Your task to perform on an android device: Search for "razer blade" on bestbuy.com, select the first entry, and add it to the cart. Image 0: 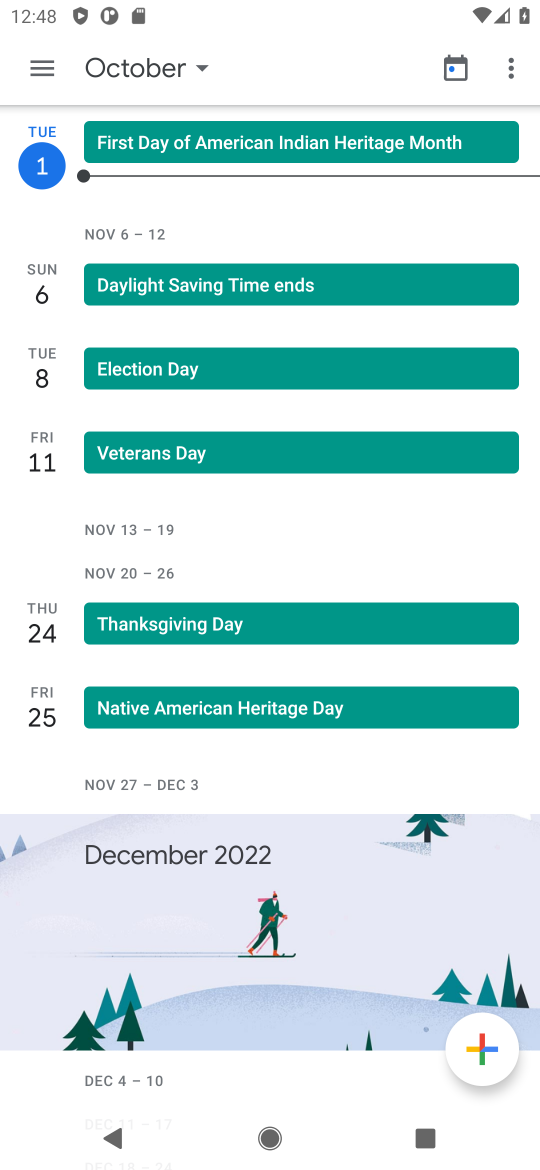
Step 0: press home button
Your task to perform on an android device: Search for "razer blade" on bestbuy.com, select the first entry, and add it to the cart. Image 1: 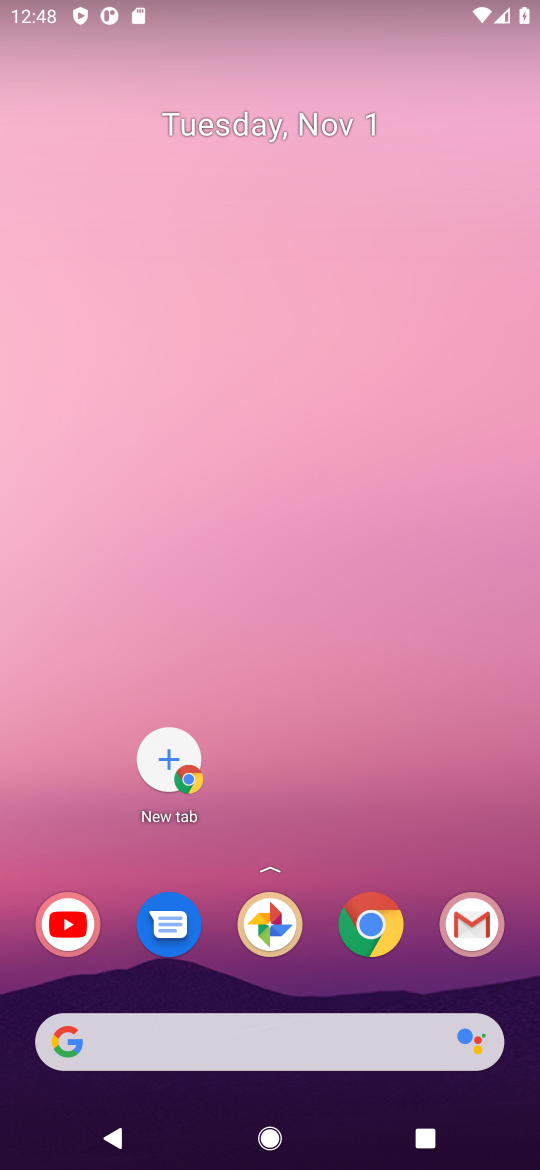
Step 1: click (378, 910)
Your task to perform on an android device: Search for "razer blade" on bestbuy.com, select the first entry, and add it to the cart. Image 2: 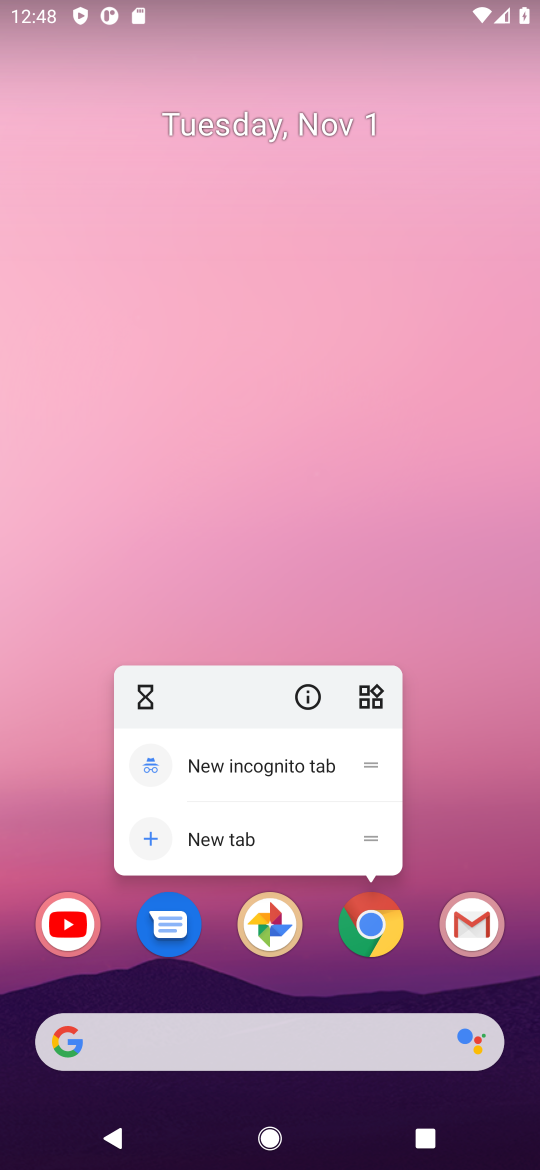
Step 2: click (371, 938)
Your task to perform on an android device: Search for "razer blade" on bestbuy.com, select the first entry, and add it to the cart. Image 3: 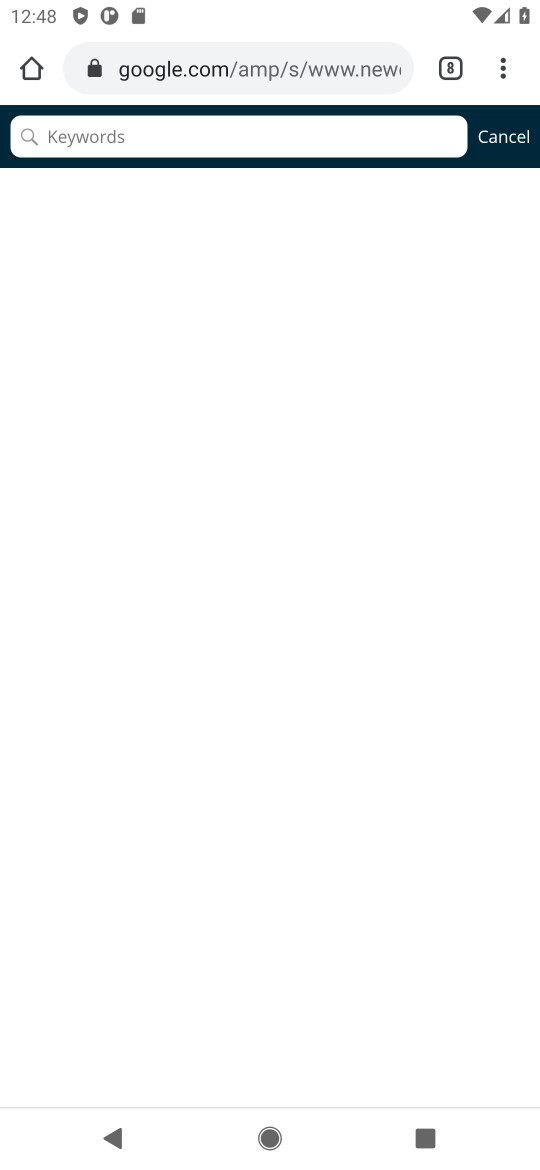
Step 3: click (144, 67)
Your task to perform on an android device: Search for "razer blade" on bestbuy.com, select the first entry, and add it to the cart. Image 4: 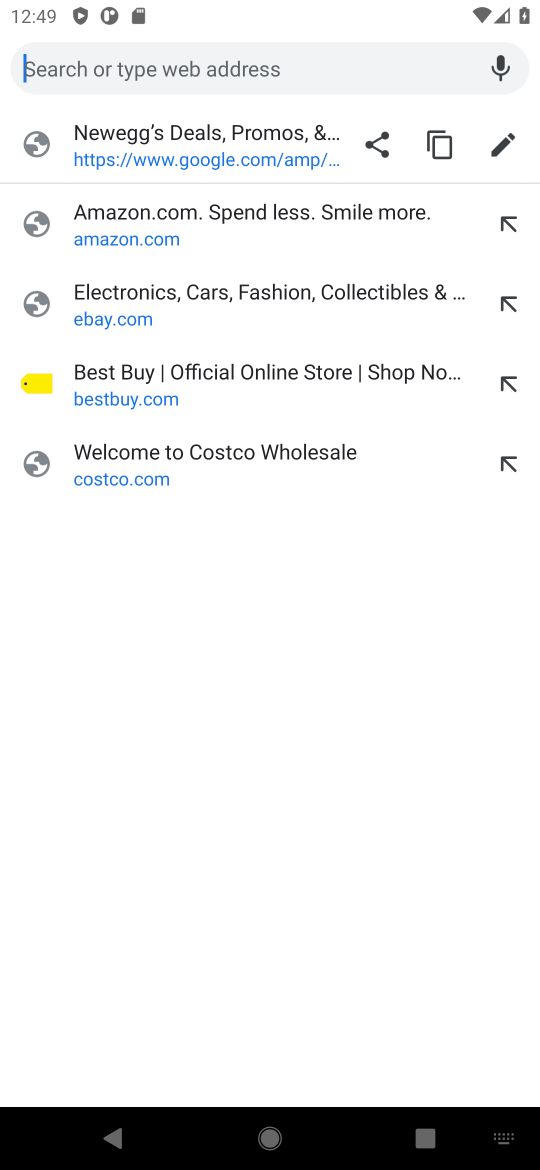
Step 4: type "bestbuy.com"
Your task to perform on an android device: Search for "razer blade" on bestbuy.com, select the first entry, and add it to the cart. Image 5: 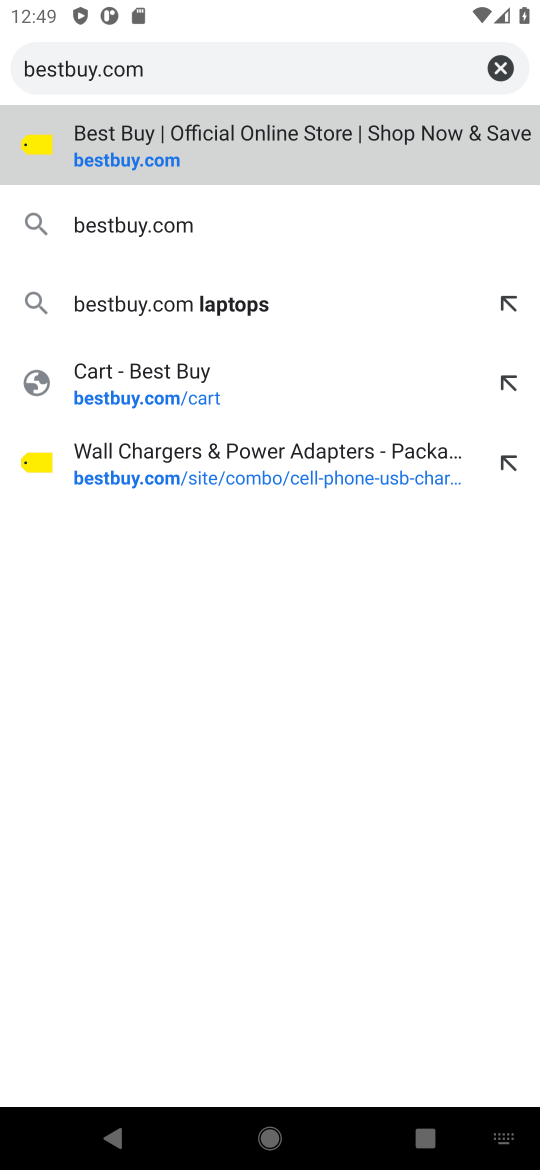
Step 5: type ""
Your task to perform on an android device: Search for "razer blade" on bestbuy.com, select the first entry, and add it to the cart. Image 6: 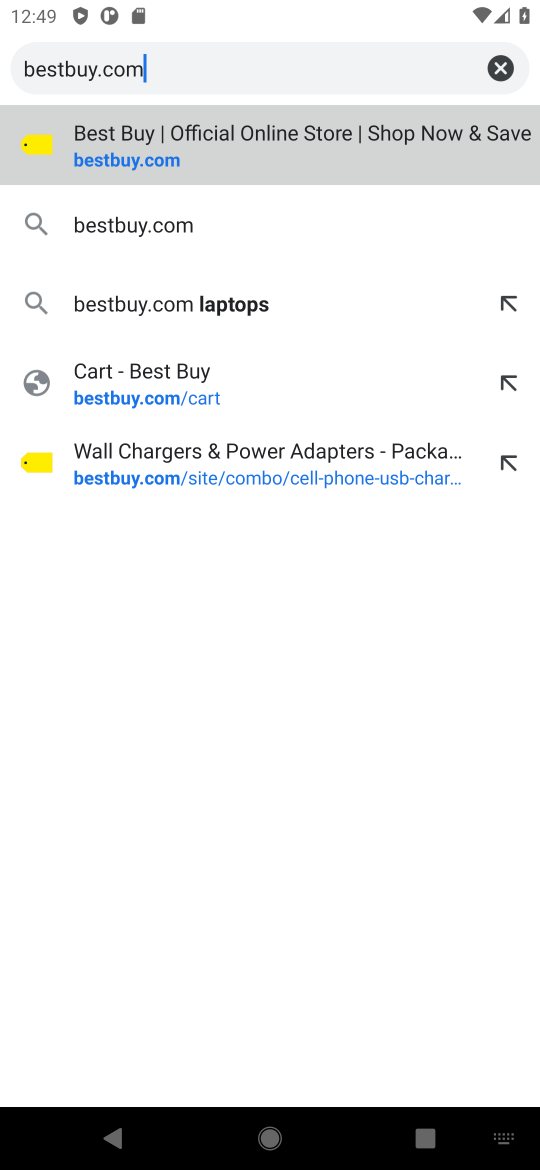
Step 6: click (129, 130)
Your task to perform on an android device: Search for "razer blade" on bestbuy.com, select the first entry, and add it to the cart. Image 7: 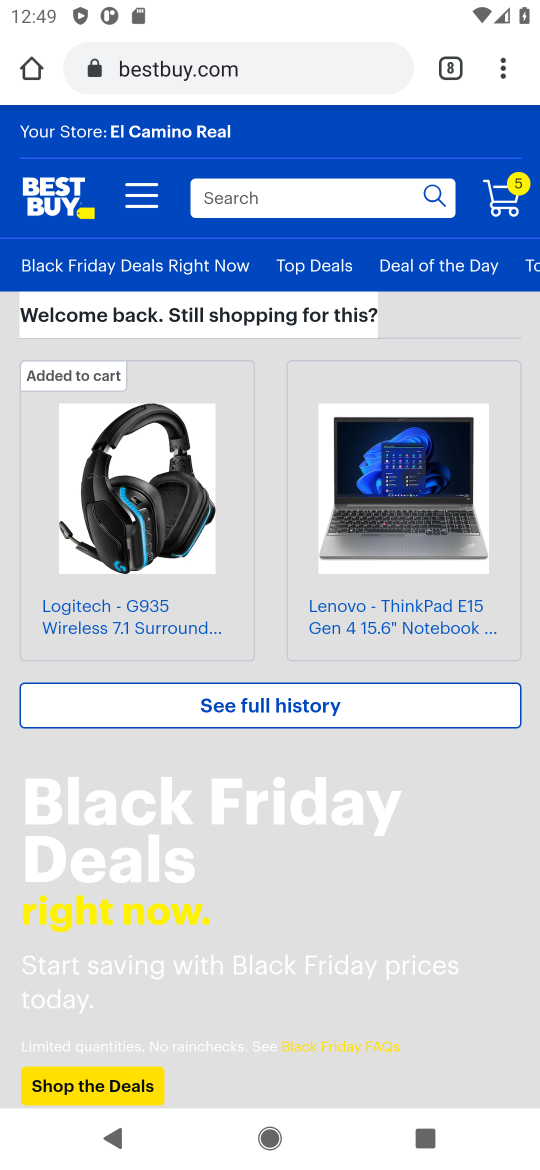
Step 7: click (350, 202)
Your task to perform on an android device: Search for "razer blade" on bestbuy.com, select the first entry, and add it to the cart. Image 8: 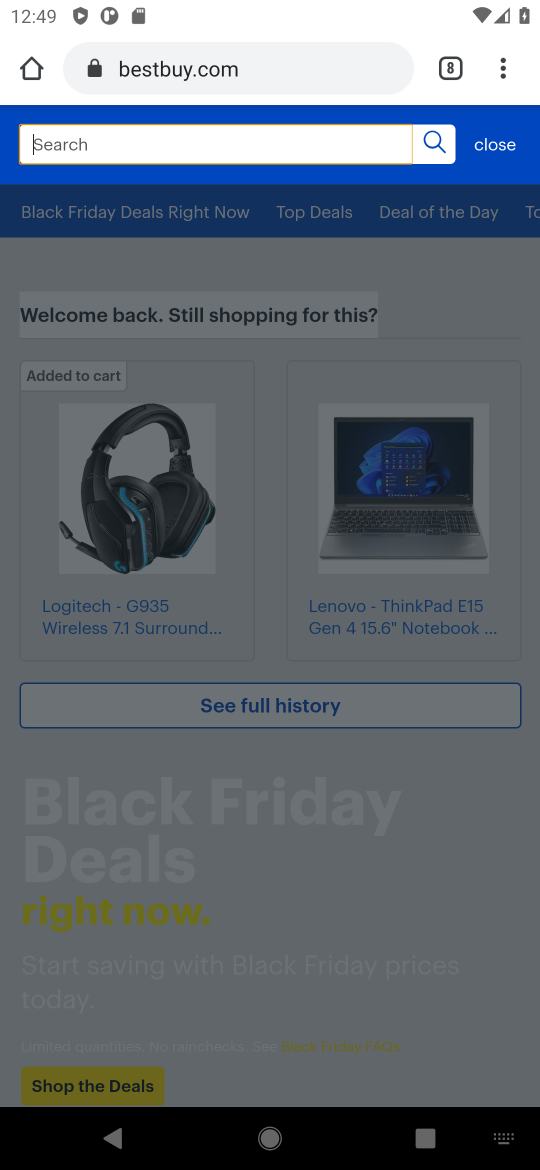
Step 8: type "razer blade"
Your task to perform on an android device: Search for "razer blade" on bestbuy.com, select the first entry, and add it to the cart. Image 9: 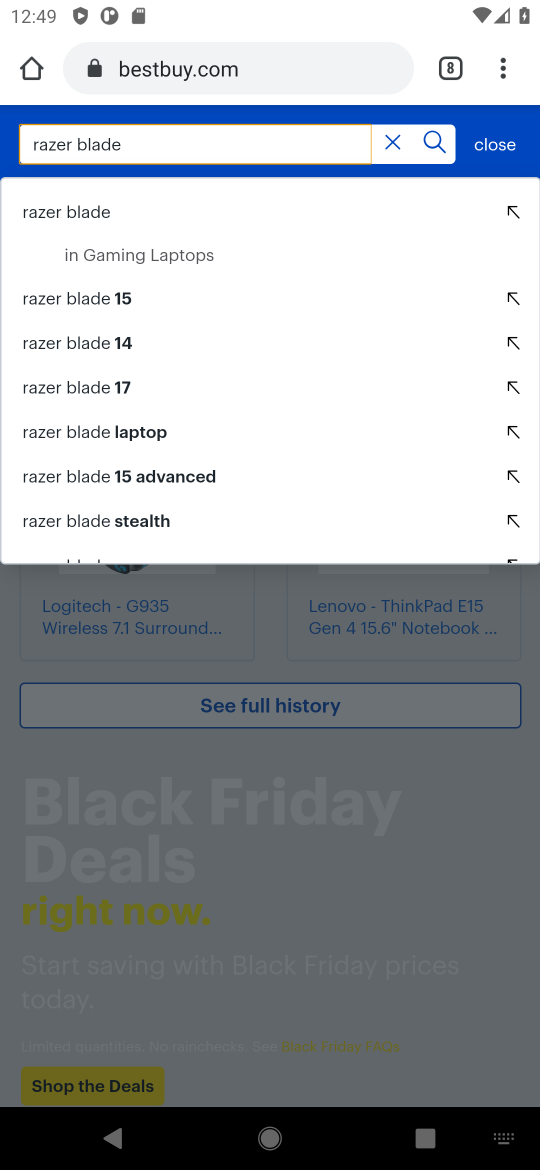
Step 9: click (80, 213)
Your task to perform on an android device: Search for "razer blade" on bestbuy.com, select the first entry, and add it to the cart. Image 10: 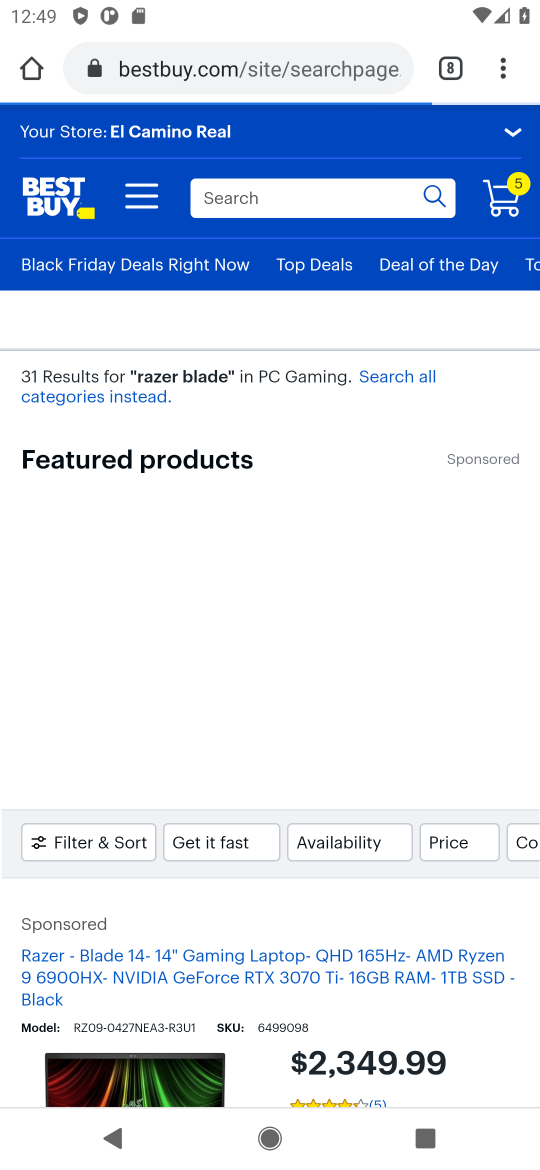
Step 10: drag from (217, 841) to (320, 364)
Your task to perform on an android device: Search for "razer blade" on bestbuy.com, select the first entry, and add it to the cart. Image 11: 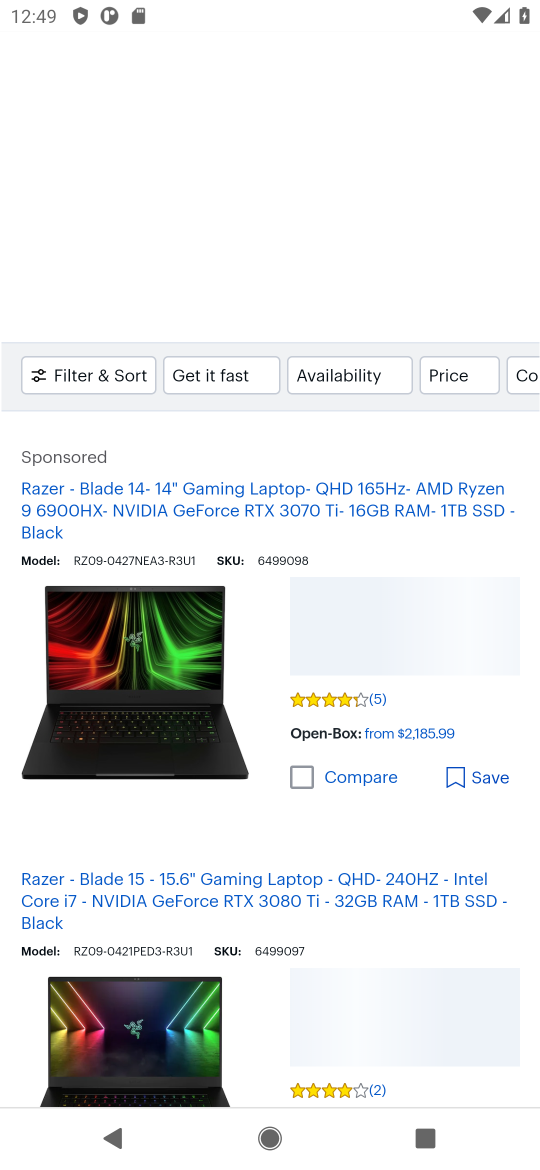
Step 11: drag from (311, 947) to (350, 588)
Your task to perform on an android device: Search for "razer blade" on bestbuy.com, select the first entry, and add it to the cart. Image 12: 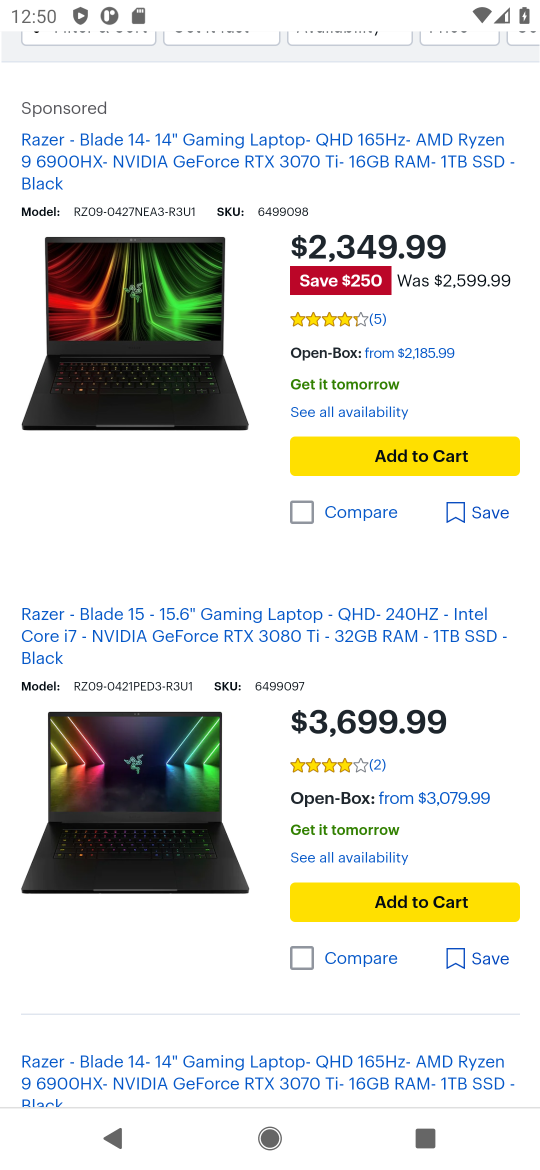
Step 12: click (96, 765)
Your task to perform on an android device: Search for "razer blade" on bestbuy.com, select the first entry, and add it to the cart. Image 13: 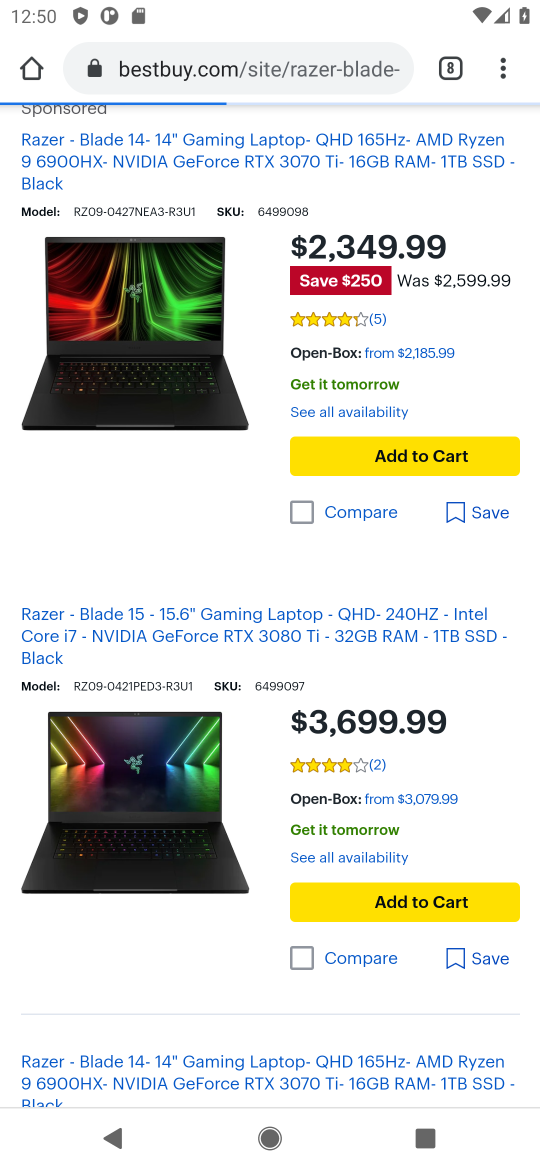
Step 13: click (164, 624)
Your task to perform on an android device: Search for "razer blade" on bestbuy.com, select the first entry, and add it to the cart. Image 14: 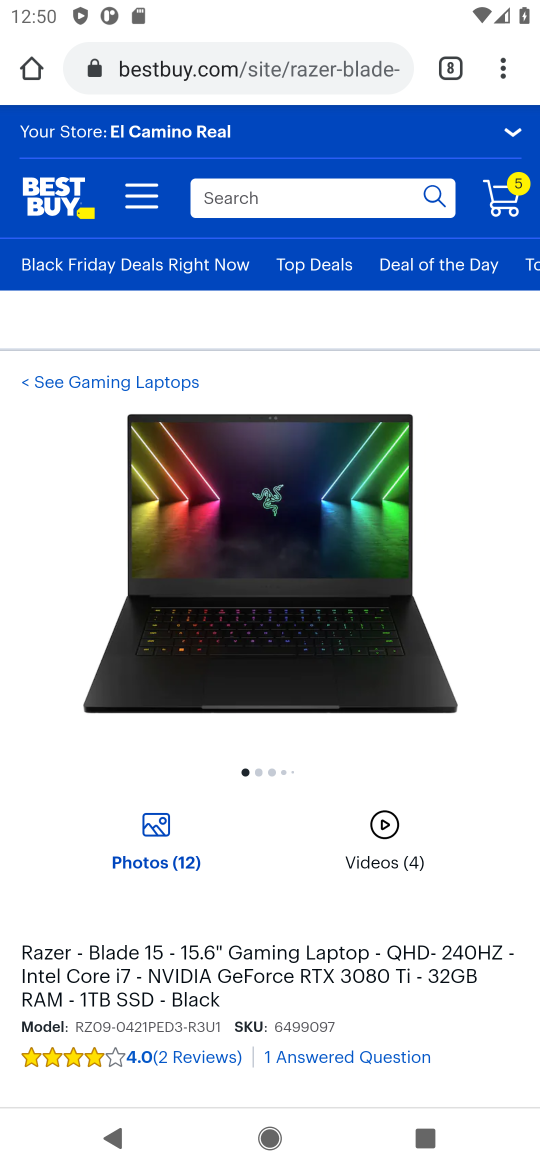
Step 14: drag from (236, 920) to (288, 535)
Your task to perform on an android device: Search for "razer blade" on bestbuy.com, select the first entry, and add it to the cart. Image 15: 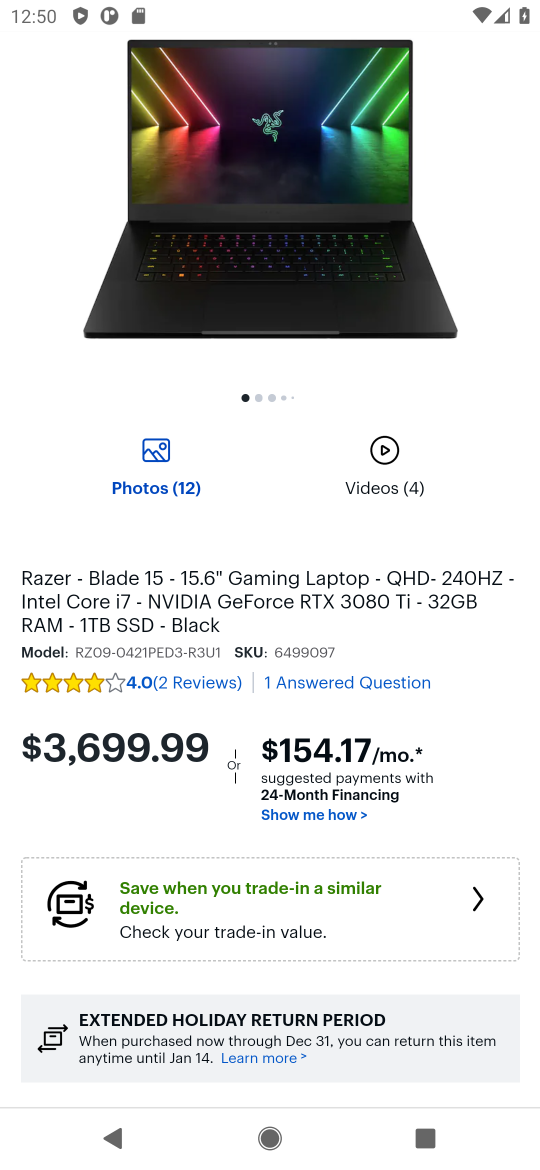
Step 15: drag from (122, 839) to (196, 613)
Your task to perform on an android device: Search for "razer blade" on bestbuy.com, select the first entry, and add it to the cart. Image 16: 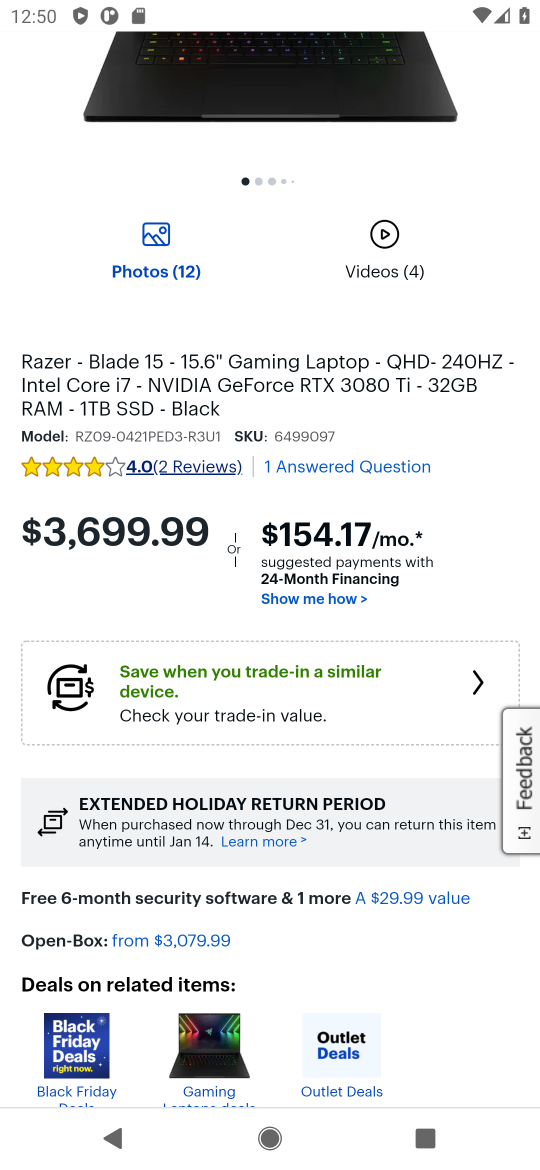
Step 16: drag from (180, 668) to (193, 491)
Your task to perform on an android device: Search for "razer blade" on bestbuy.com, select the first entry, and add it to the cart. Image 17: 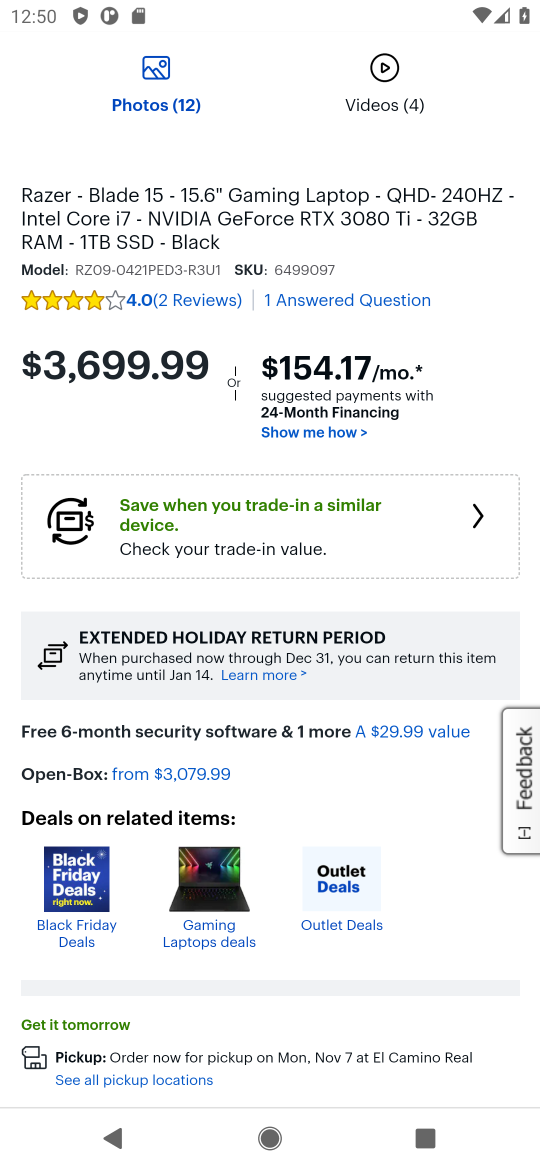
Step 17: drag from (177, 858) to (263, 410)
Your task to perform on an android device: Search for "razer blade" on bestbuy.com, select the first entry, and add it to the cart. Image 18: 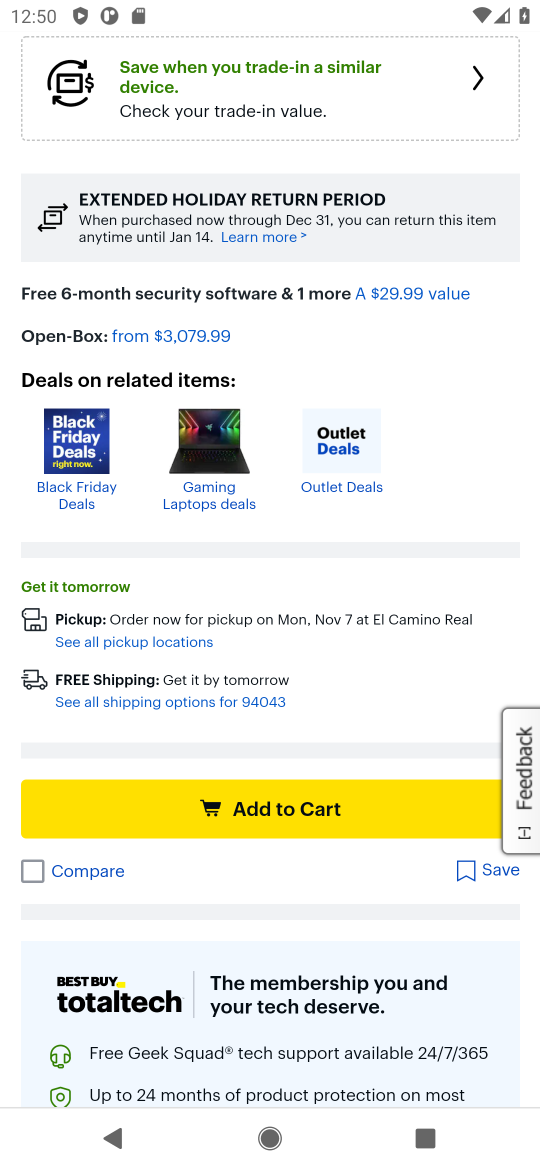
Step 18: click (320, 823)
Your task to perform on an android device: Search for "razer blade" on bestbuy.com, select the first entry, and add it to the cart. Image 19: 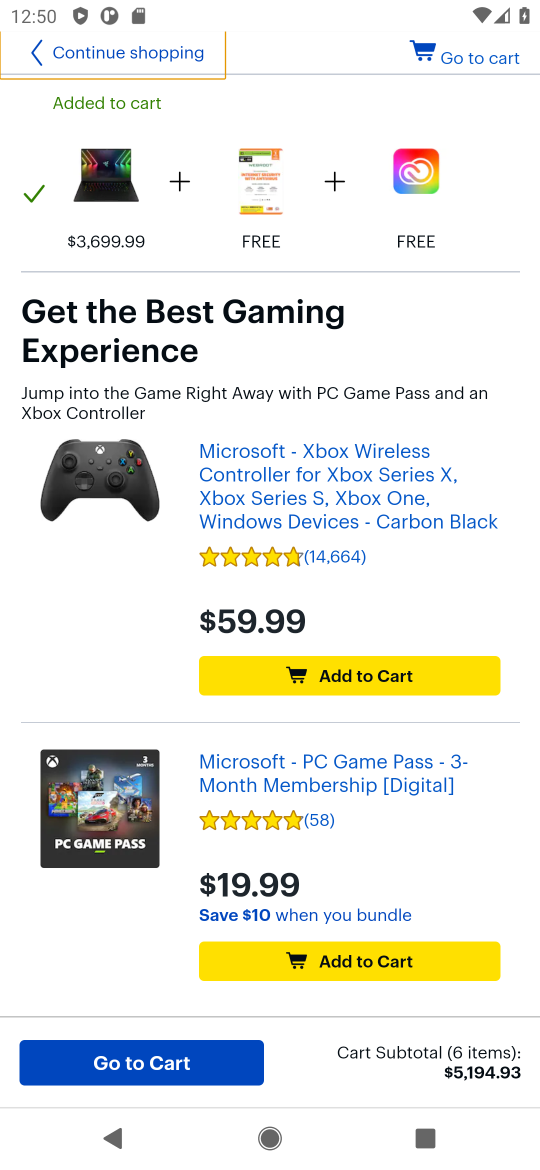
Step 19: task complete